Your task to perform on an android device: Open the phone app and click the voicemail tab. Image 0: 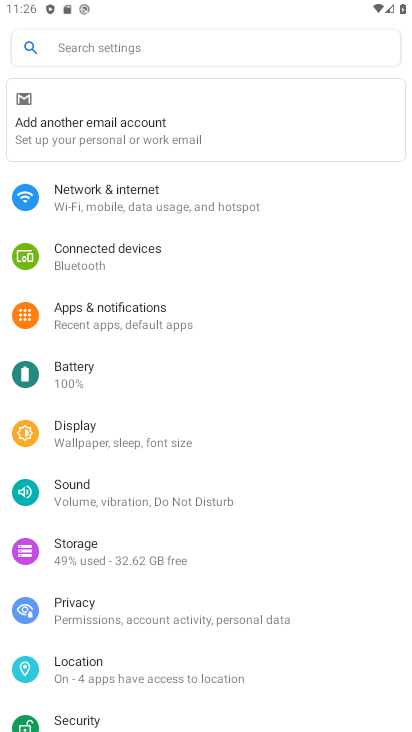
Step 0: press home button
Your task to perform on an android device: Open the phone app and click the voicemail tab. Image 1: 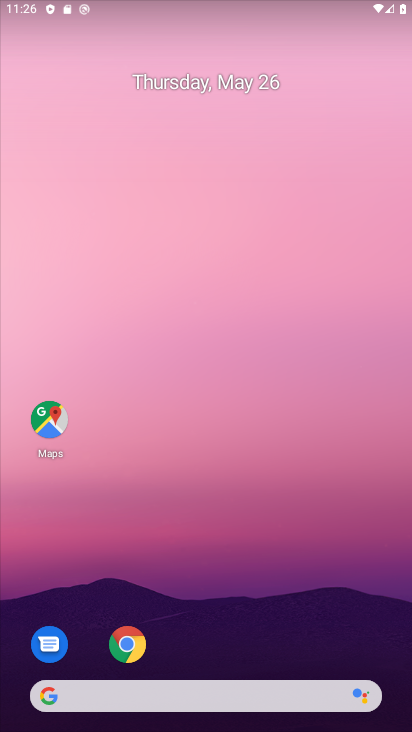
Step 1: drag from (246, 628) to (211, 72)
Your task to perform on an android device: Open the phone app and click the voicemail tab. Image 2: 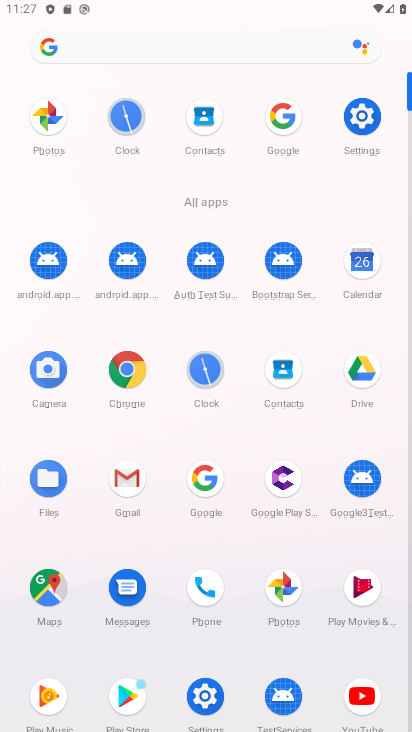
Step 2: click (205, 578)
Your task to perform on an android device: Open the phone app and click the voicemail tab. Image 3: 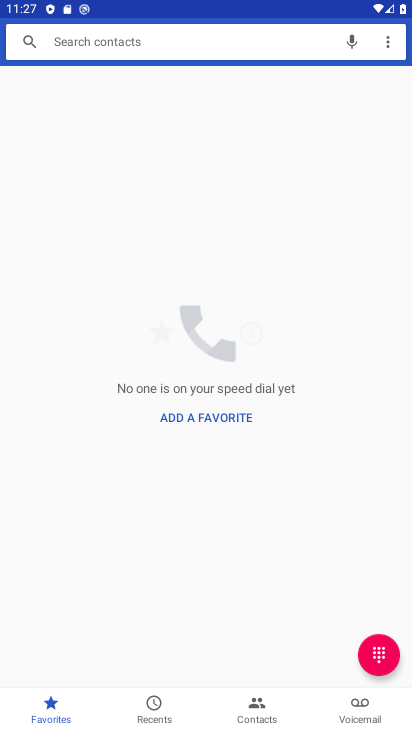
Step 3: click (360, 717)
Your task to perform on an android device: Open the phone app and click the voicemail tab. Image 4: 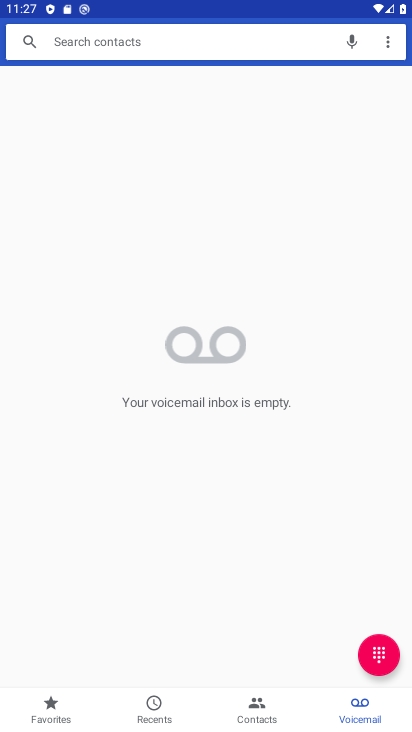
Step 4: task complete